Your task to perform on an android device: Search for vintage wall art on Etsy. Image 0: 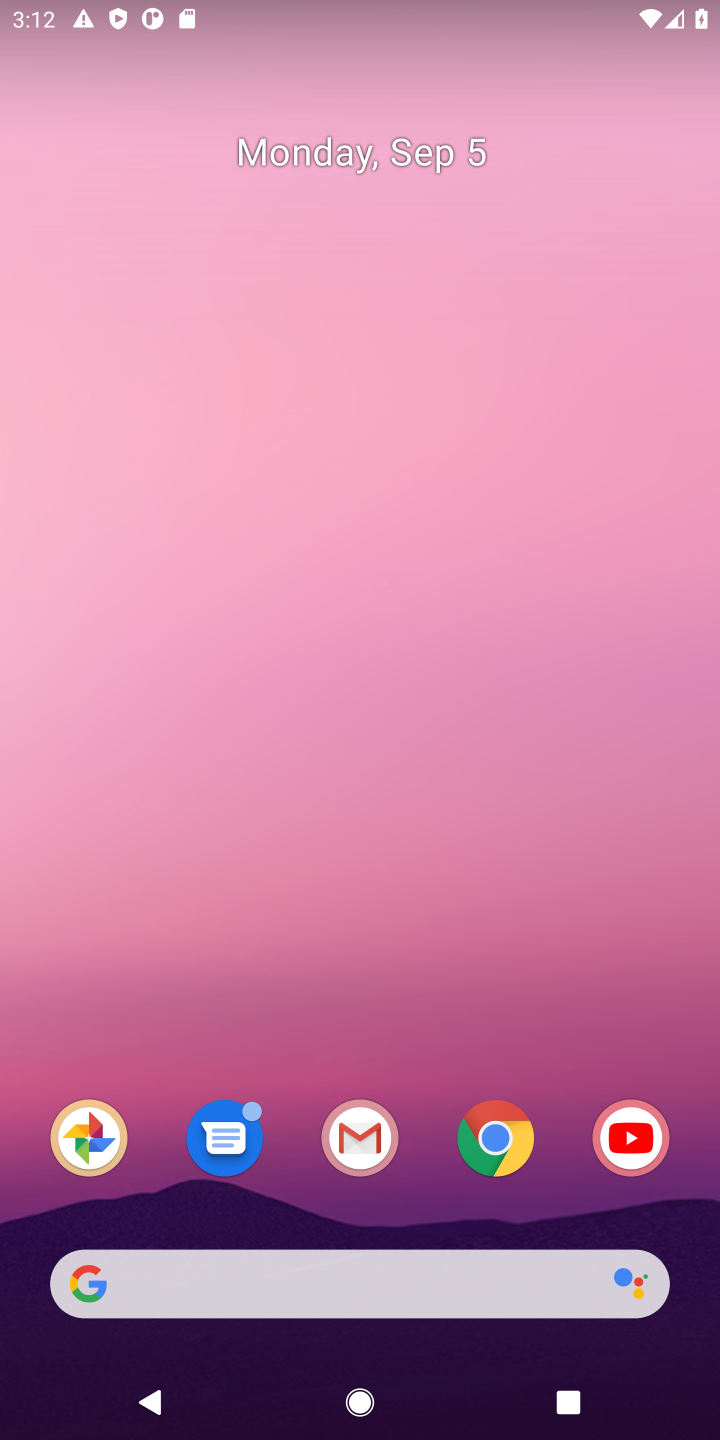
Step 0: click (503, 1137)
Your task to perform on an android device: Search for vintage wall art on Etsy. Image 1: 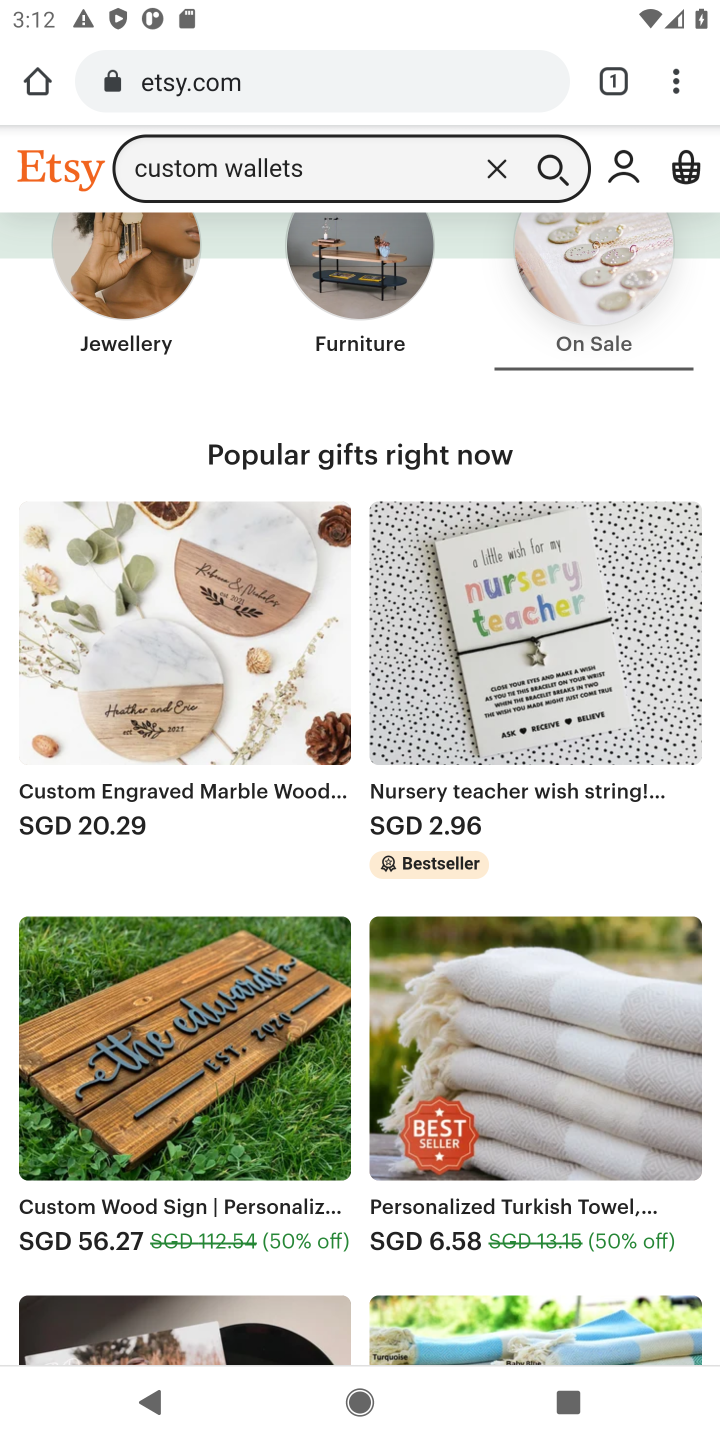
Step 1: click (415, 85)
Your task to perform on an android device: Search for vintage wall art on Etsy. Image 2: 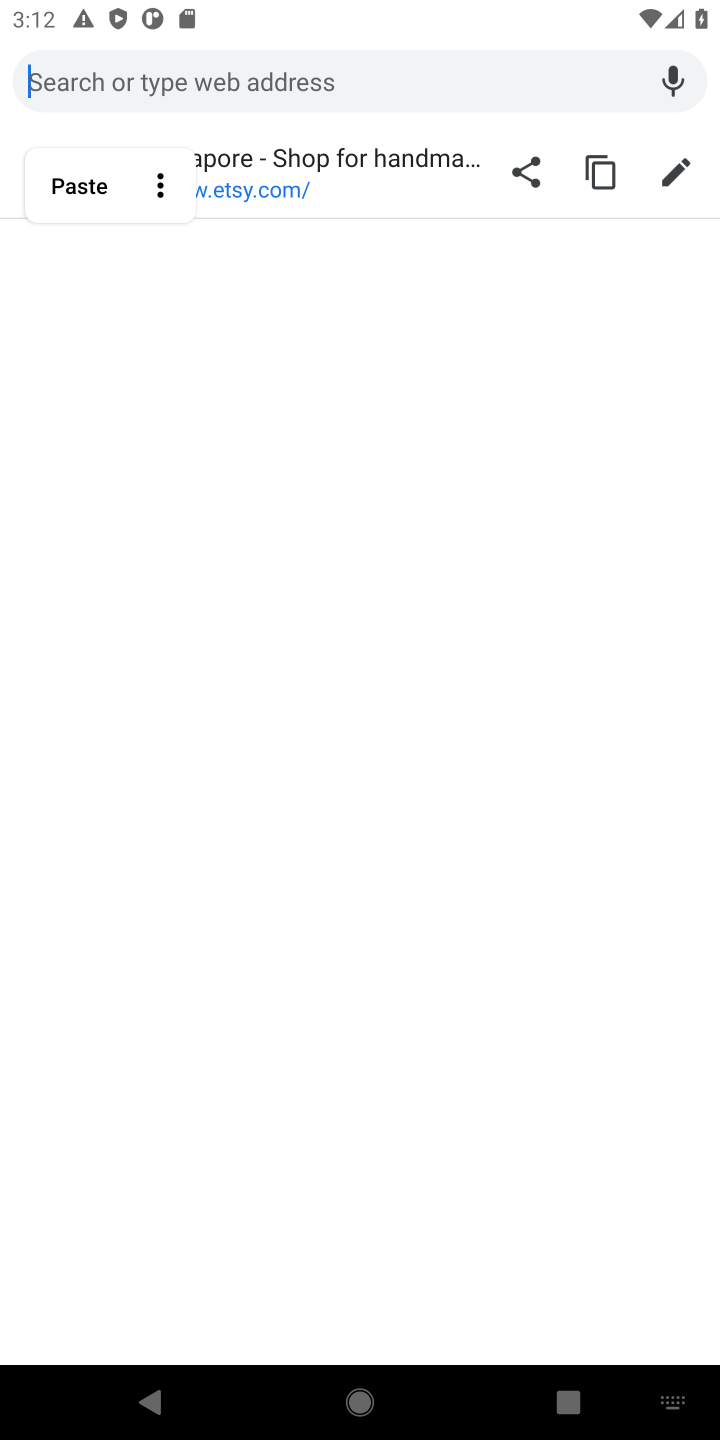
Step 2: type "Etsy"
Your task to perform on an android device: Search for vintage wall art on Etsy. Image 3: 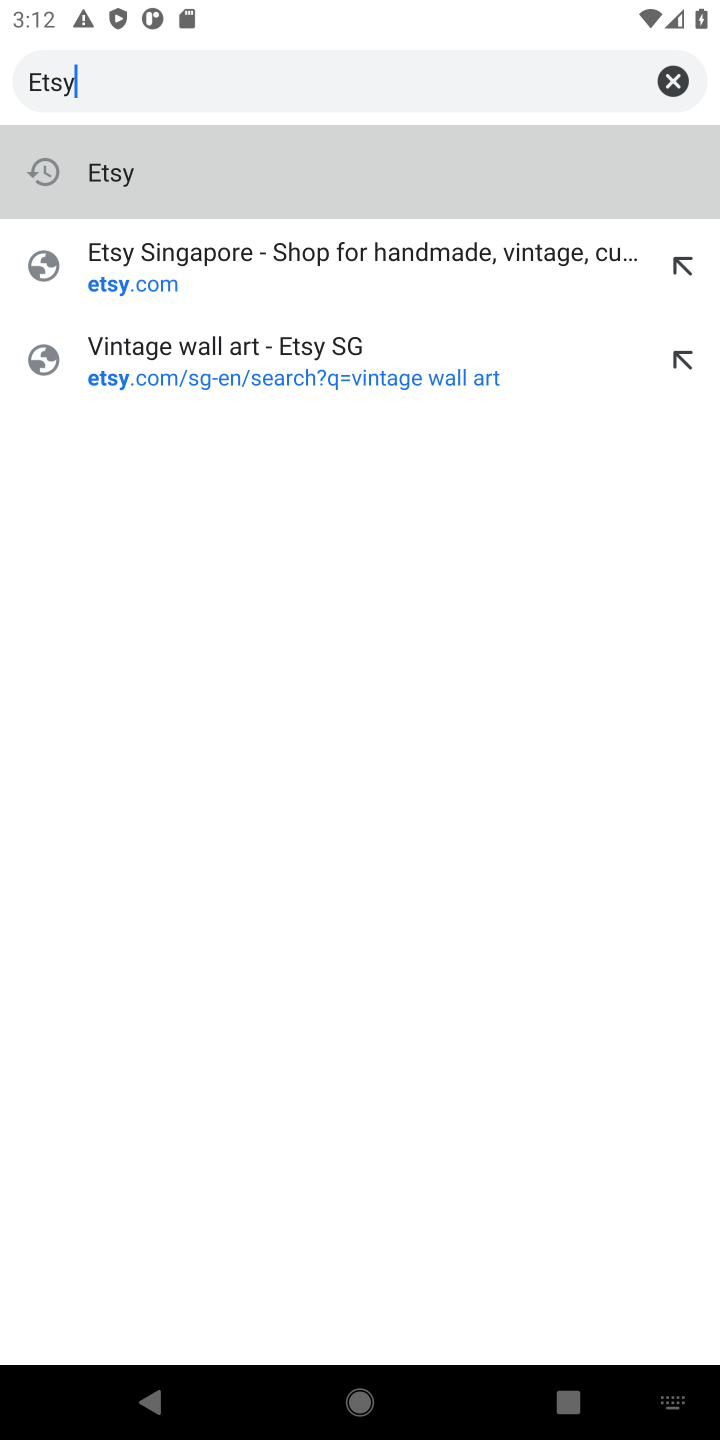
Step 3: click (322, 153)
Your task to perform on an android device: Search for vintage wall art on Etsy. Image 4: 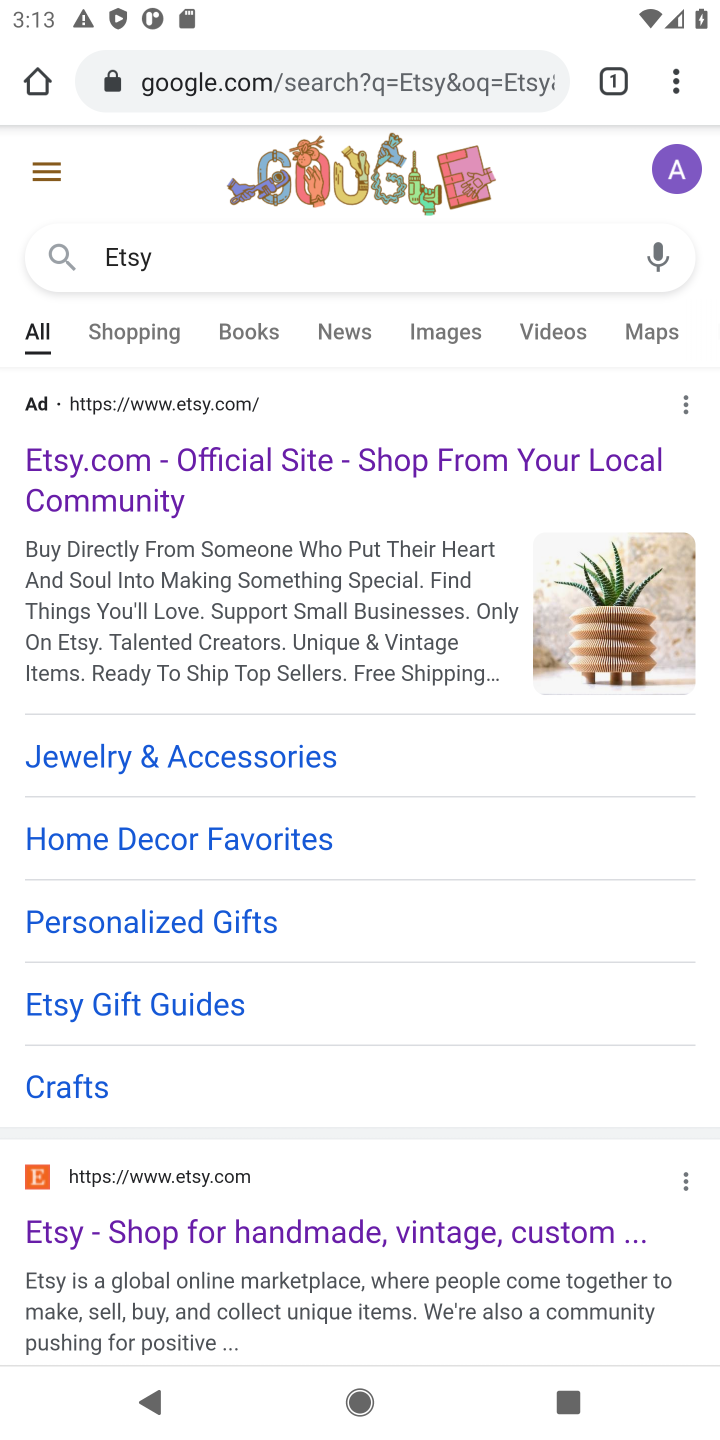
Step 4: click (400, 1255)
Your task to perform on an android device: Search for vintage wall art on Etsy. Image 5: 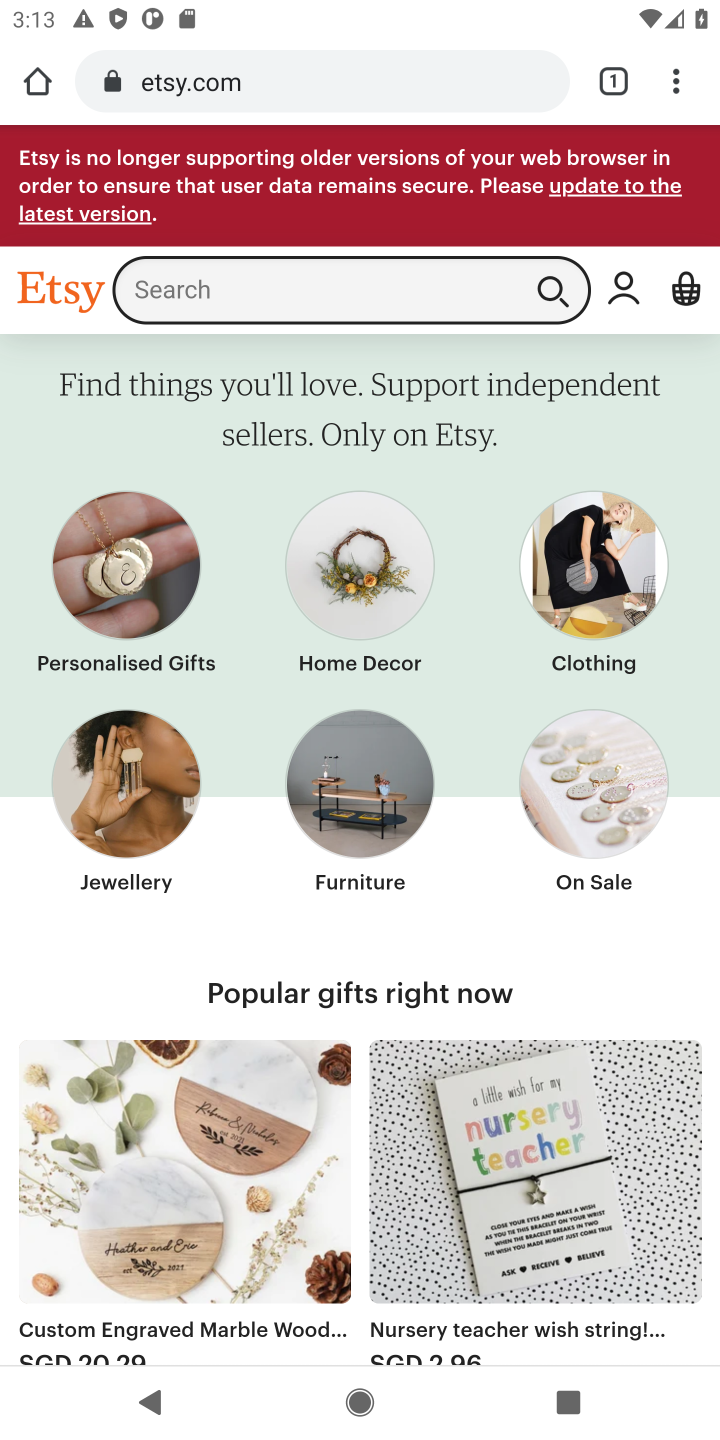
Step 5: click (329, 280)
Your task to perform on an android device: Search for vintage wall art on Etsy. Image 6: 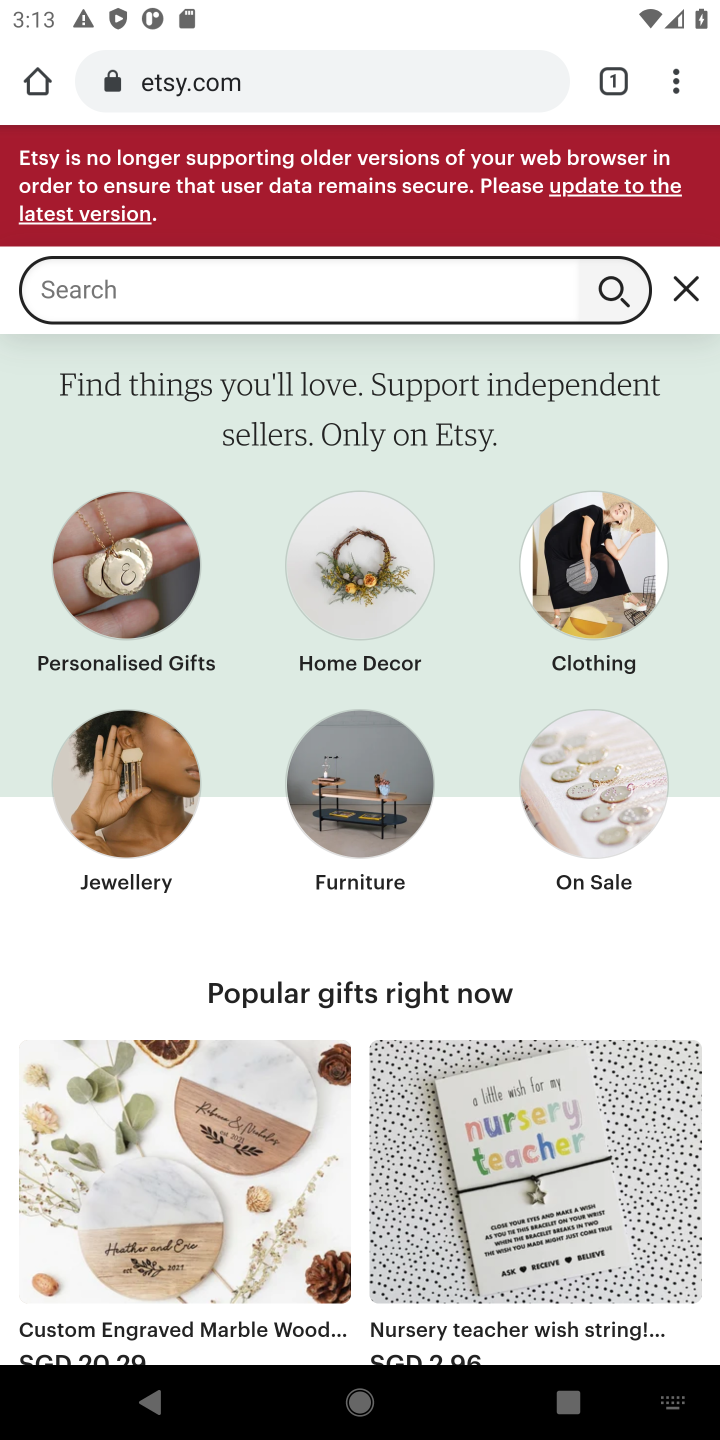
Step 6: type "vitage wall"
Your task to perform on an android device: Search for vintage wall art on Etsy. Image 7: 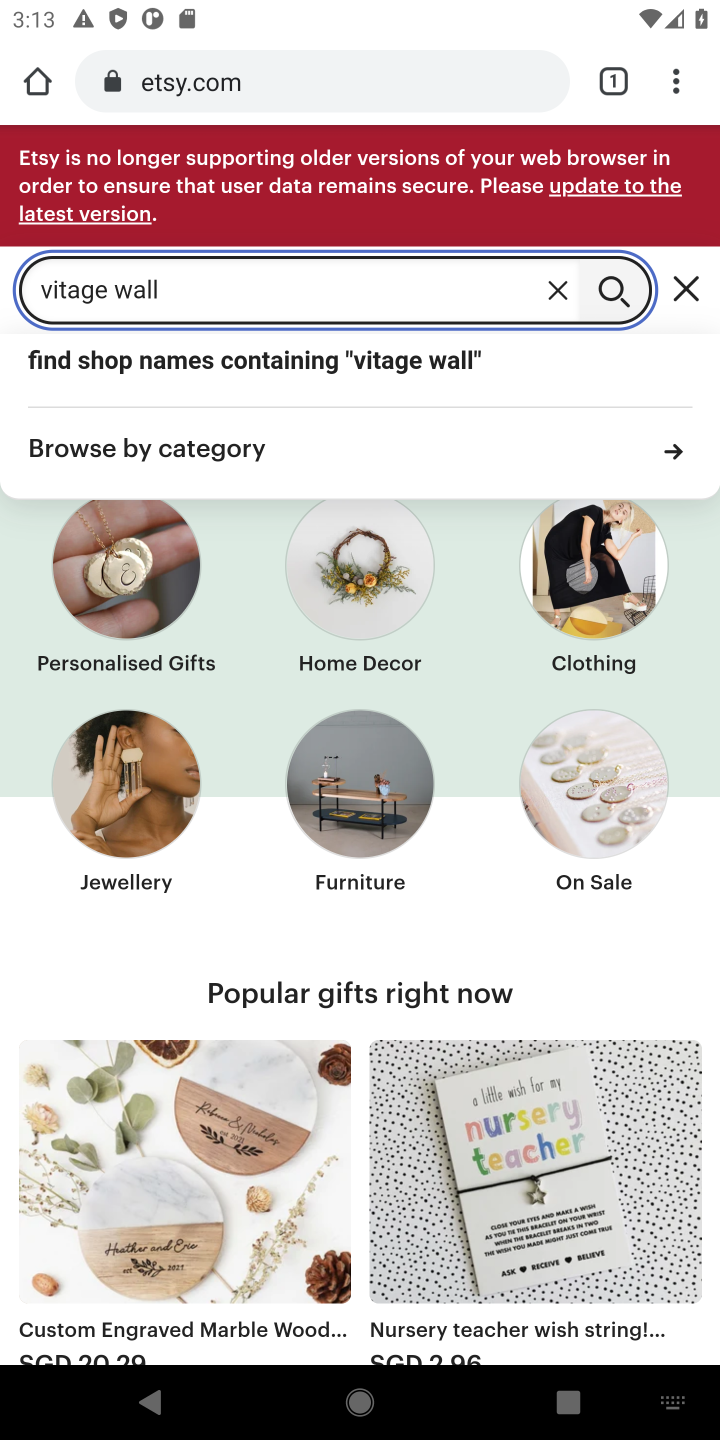
Step 7: click (613, 293)
Your task to perform on an android device: Search for vintage wall art on Etsy. Image 8: 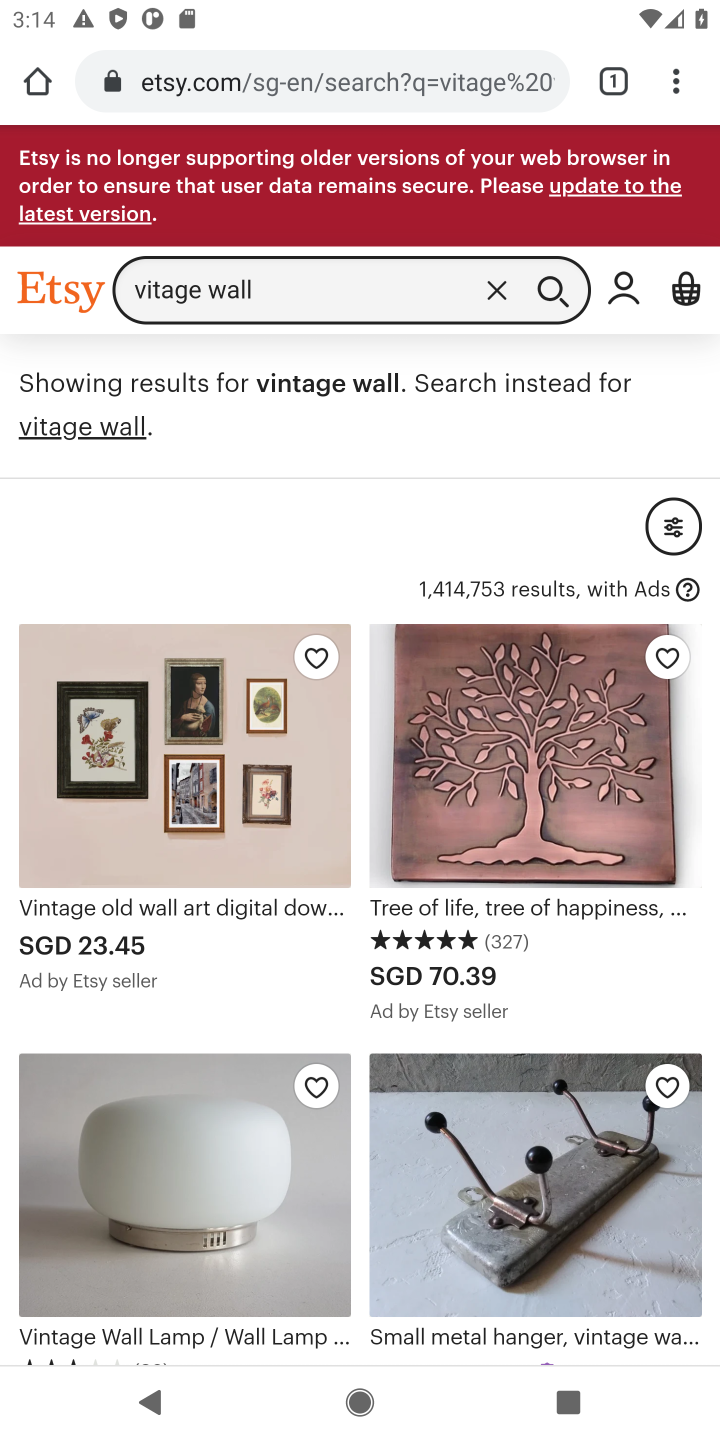
Step 8: task complete